Your task to perform on an android device: Go to Wikipedia Image 0: 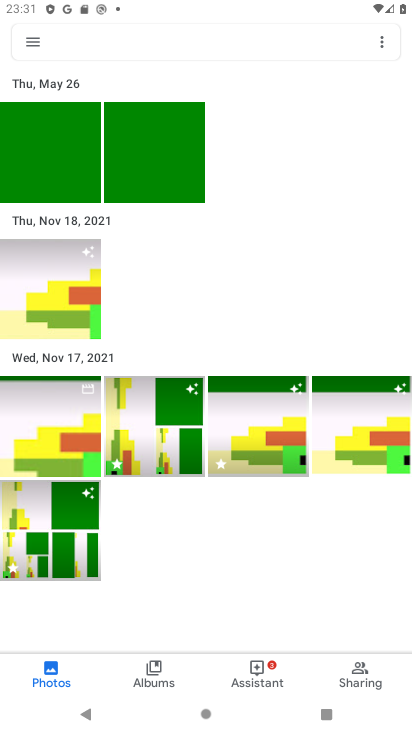
Step 0: press home button
Your task to perform on an android device: Go to Wikipedia Image 1: 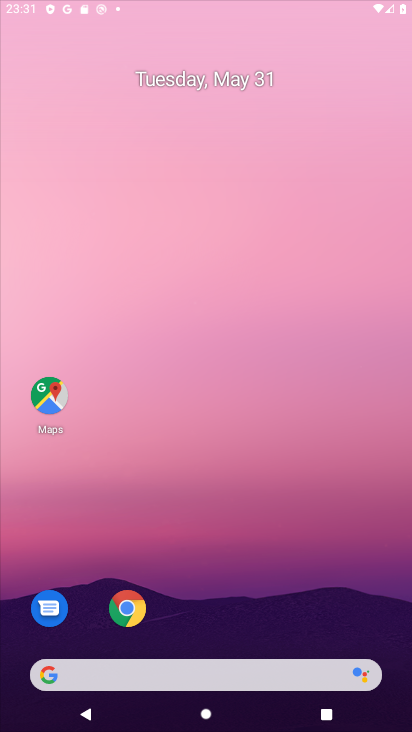
Step 1: drag from (277, 617) to (315, 220)
Your task to perform on an android device: Go to Wikipedia Image 2: 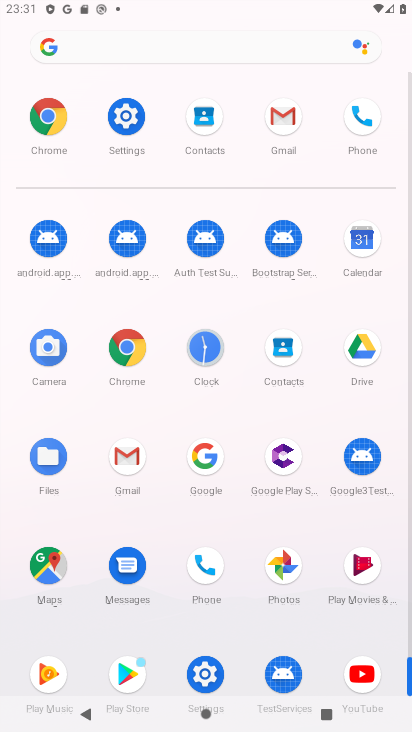
Step 2: click (123, 319)
Your task to perform on an android device: Go to Wikipedia Image 3: 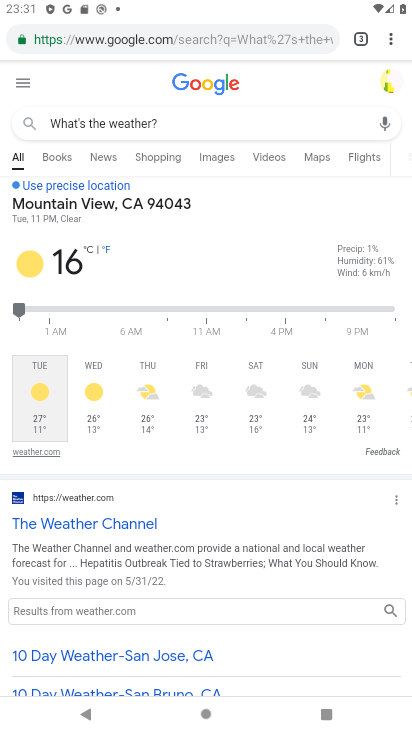
Step 3: click (355, 41)
Your task to perform on an android device: Go to Wikipedia Image 4: 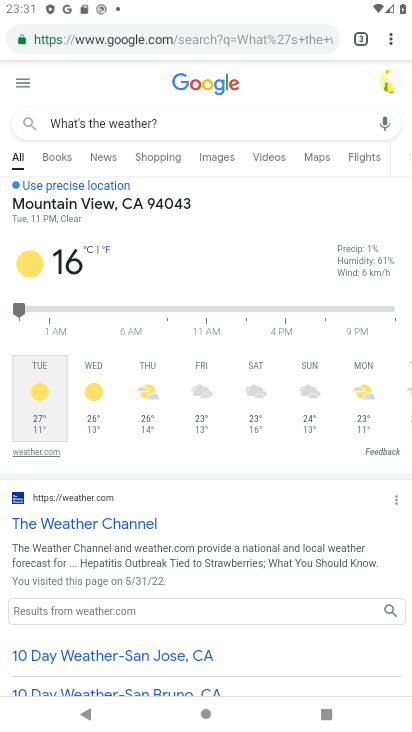
Step 4: drag from (387, 29) to (288, 65)
Your task to perform on an android device: Go to Wikipedia Image 5: 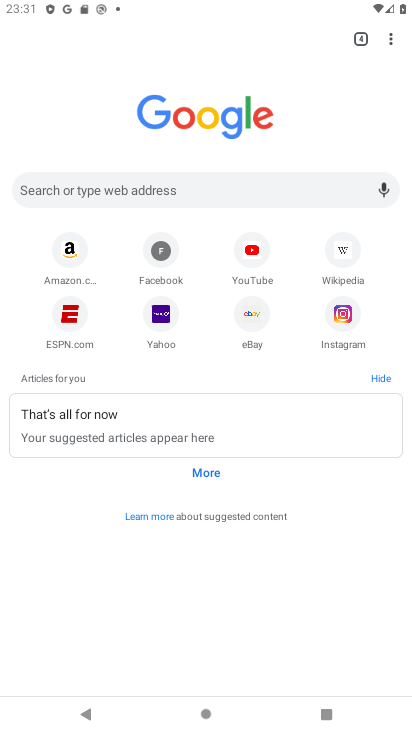
Step 5: click (323, 258)
Your task to perform on an android device: Go to Wikipedia Image 6: 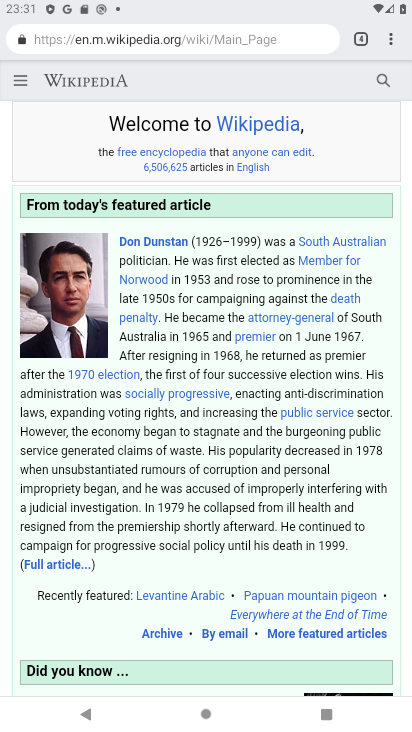
Step 6: task complete